Your task to perform on an android device: turn on the 12-hour format for clock Image 0: 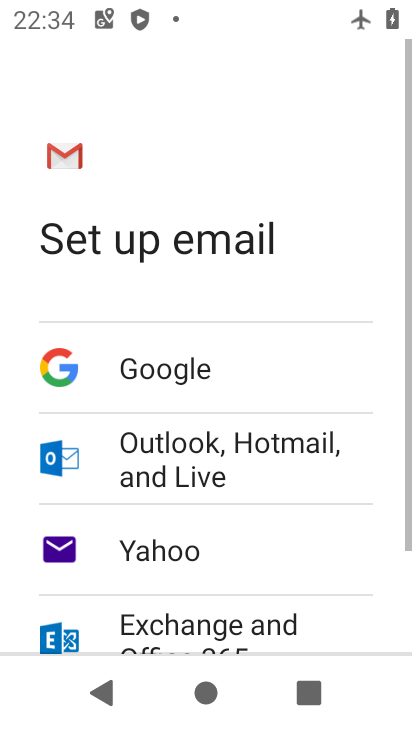
Step 0: drag from (247, 555) to (291, 270)
Your task to perform on an android device: turn on the 12-hour format for clock Image 1: 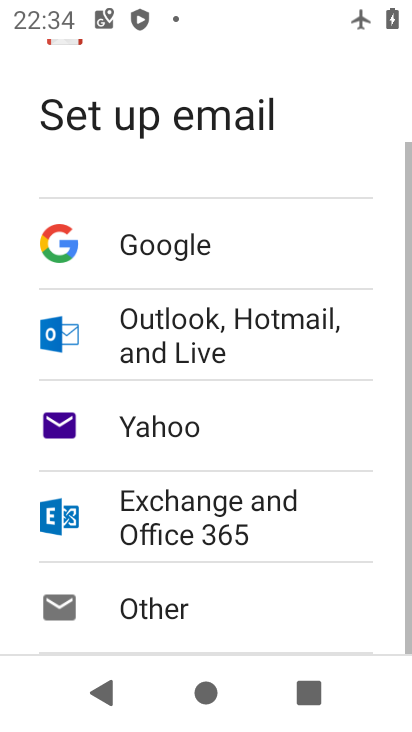
Step 1: press home button
Your task to perform on an android device: turn on the 12-hour format for clock Image 2: 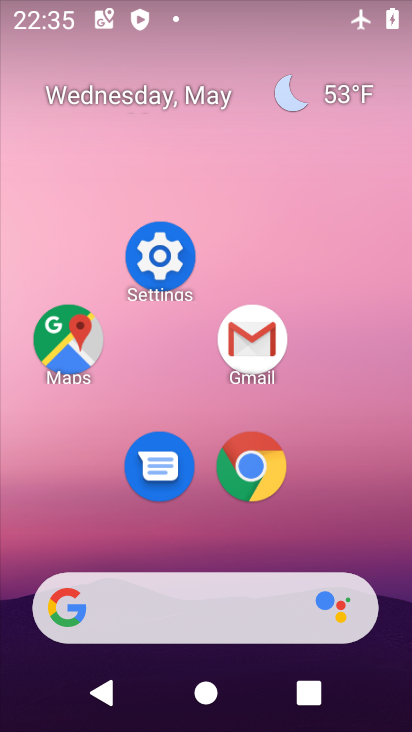
Step 2: drag from (177, 556) to (258, 172)
Your task to perform on an android device: turn on the 12-hour format for clock Image 3: 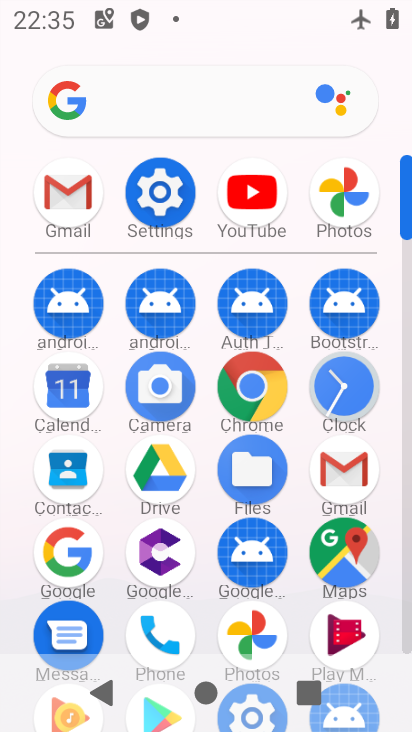
Step 3: click (344, 371)
Your task to perform on an android device: turn on the 12-hour format for clock Image 4: 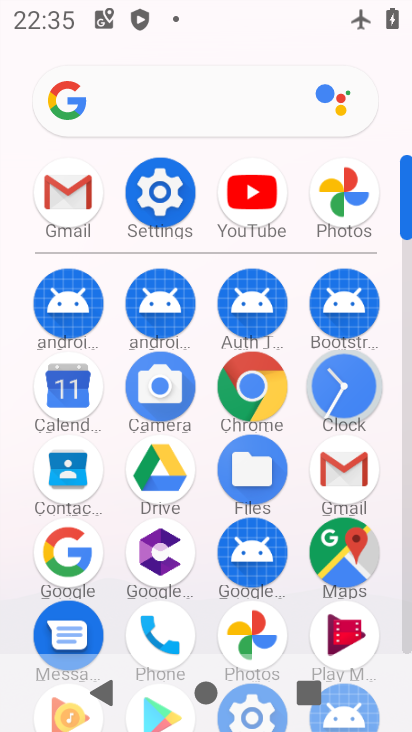
Step 4: click (344, 371)
Your task to perform on an android device: turn on the 12-hour format for clock Image 5: 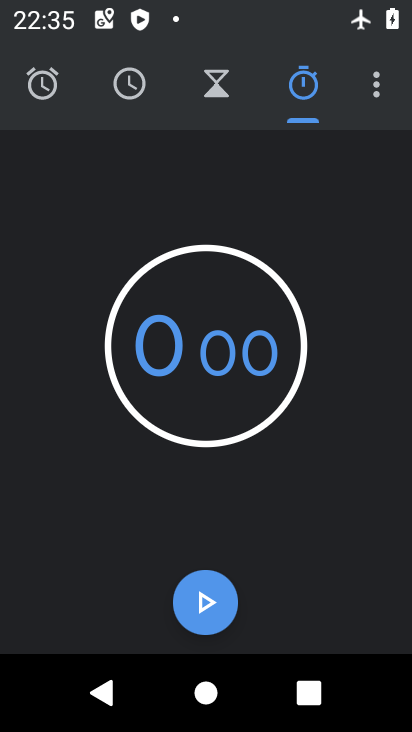
Step 5: click (374, 95)
Your task to perform on an android device: turn on the 12-hour format for clock Image 6: 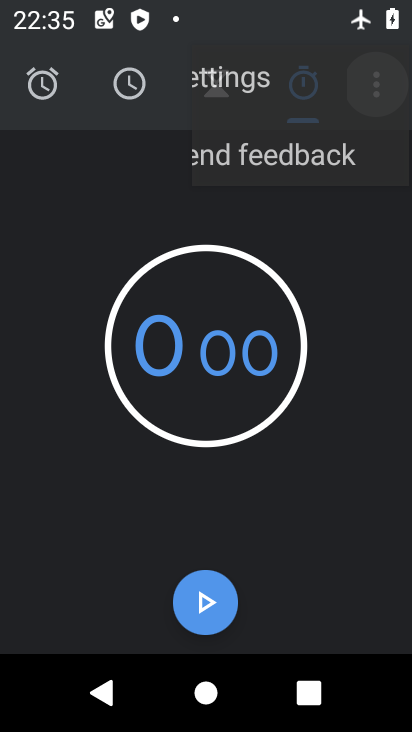
Step 6: click (381, 72)
Your task to perform on an android device: turn on the 12-hour format for clock Image 7: 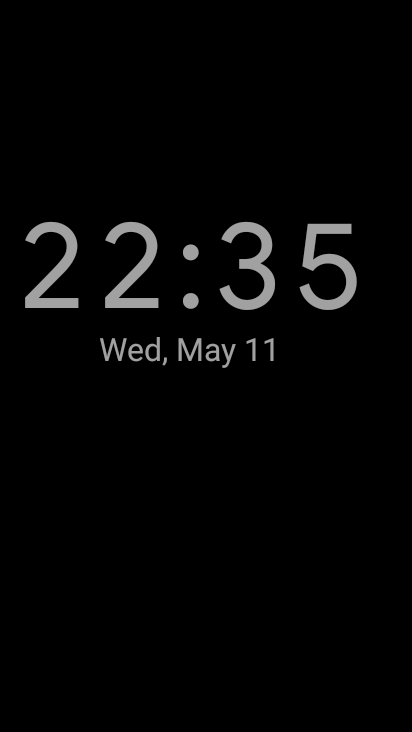
Step 7: click (220, 160)
Your task to perform on an android device: turn on the 12-hour format for clock Image 8: 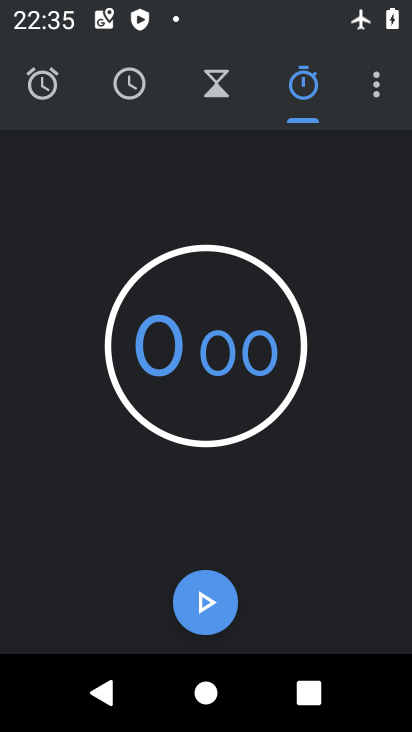
Step 8: click (375, 75)
Your task to perform on an android device: turn on the 12-hour format for clock Image 9: 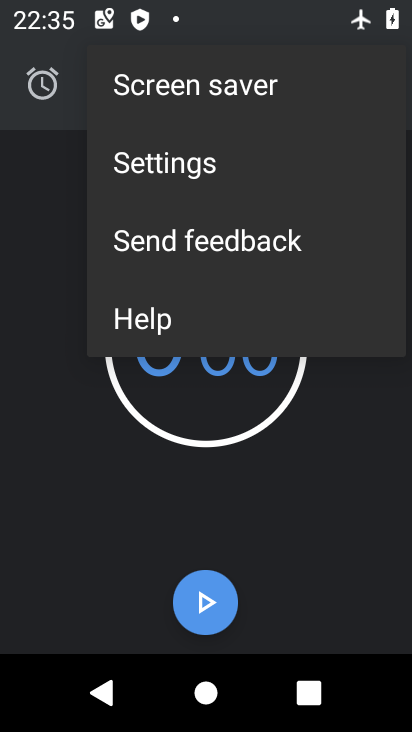
Step 9: click (182, 142)
Your task to perform on an android device: turn on the 12-hour format for clock Image 10: 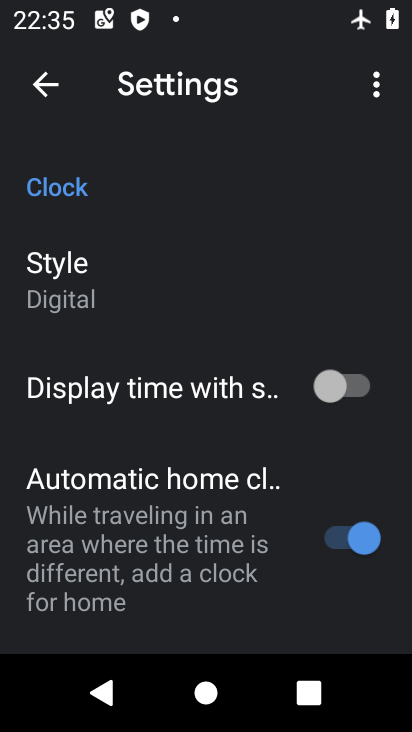
Step 10: drag from (222, 565) to (262, 181)
Your task to perform on an android device: turn on the 12-hour format for clock Image 11: 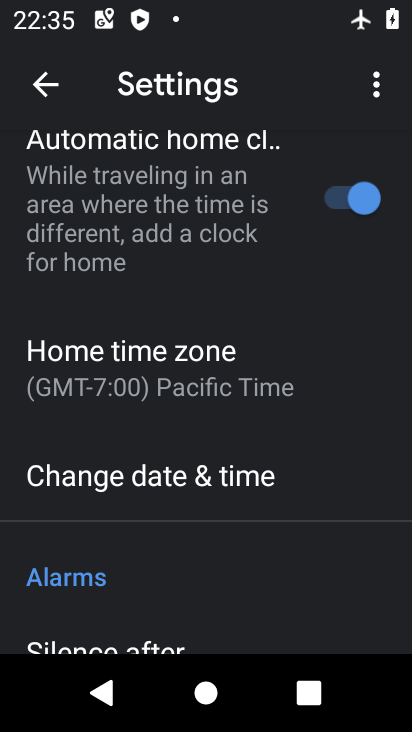
Step 11: click (206, 480)
Your task to perform on an android device: turn on the 12-hour format for clock Image 12: 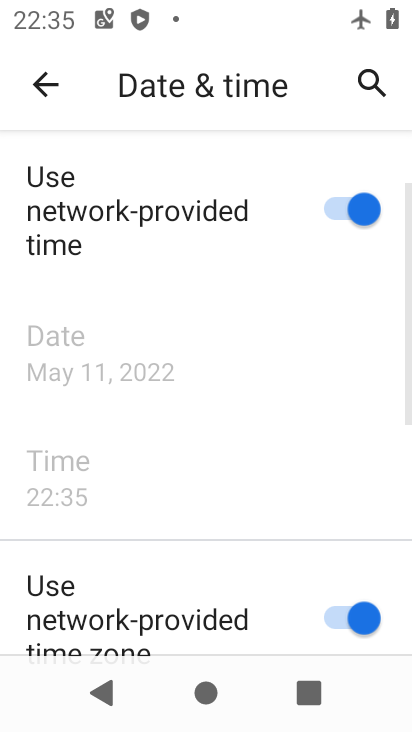
Step 12: drag from (271, 499) to (318, 158)
Your task to perform on an android device: turn on the 12-hour format for clock Image 13: 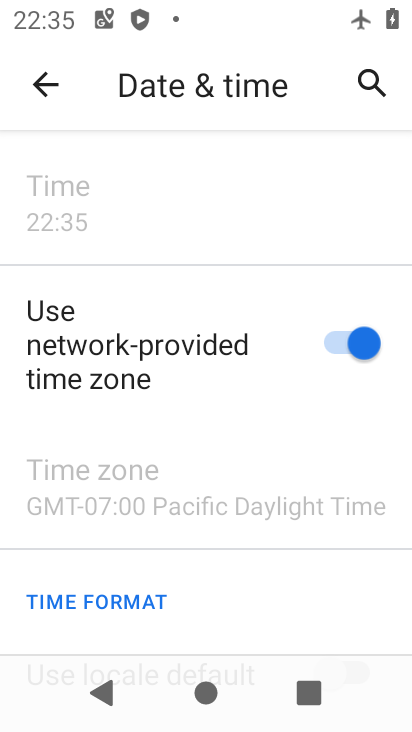
Step 13: drag from (235, 499) to (246, 224)
Your task to perform on an android device: turn on the 12-hour format for clock Image 14: 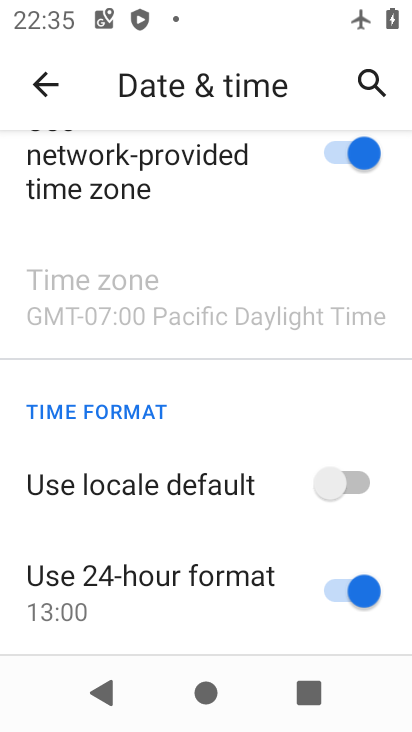
Step 14: click (342, 571)
Your task to perform on an android device: turn on the 12-hour format for clock Image 15: 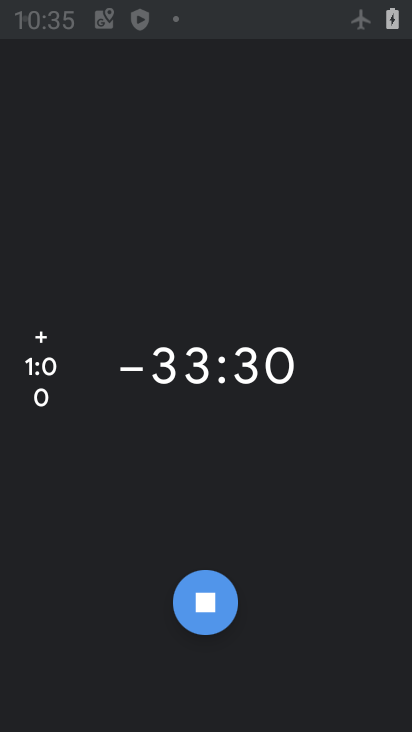
Step 15: task complete